Your task to perform on an android device: change the clock style Image 0: 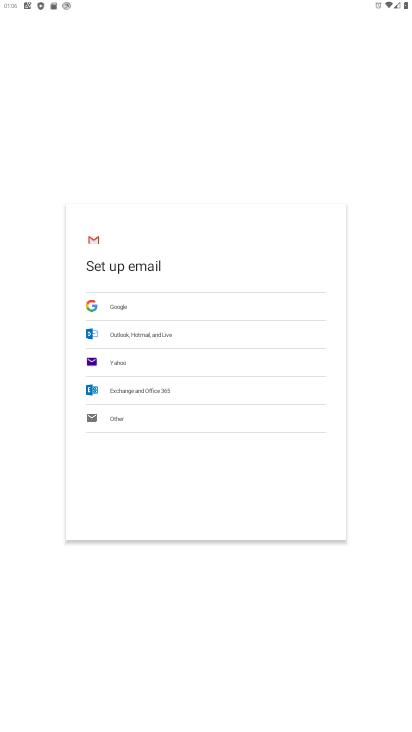
Step 0: press home button
Your task to perform on an android device: change the clock style Image 1: 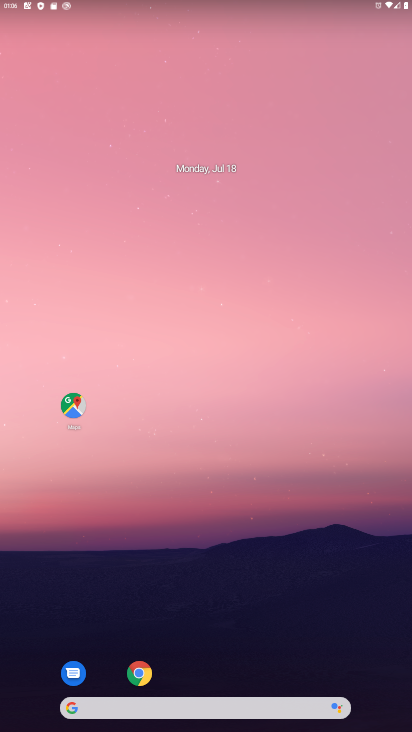
Step 1: drag from (222, 657) to (214, 35)
Your task to perform on an android device: change the clock style Image 2: 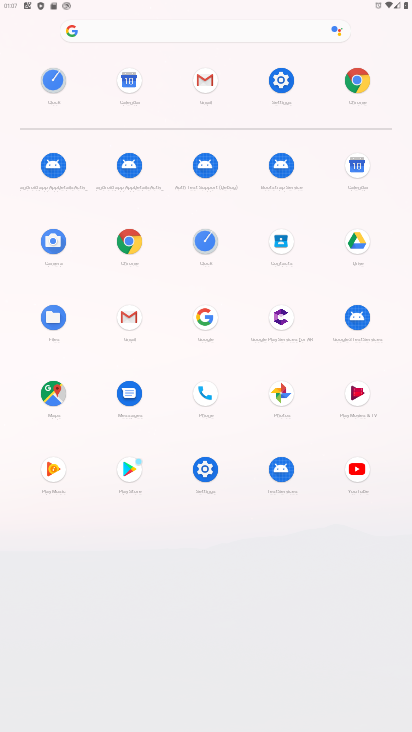
Step 2: click (48, 85)
Your task to perform on an android device: change the clock style Image 3: 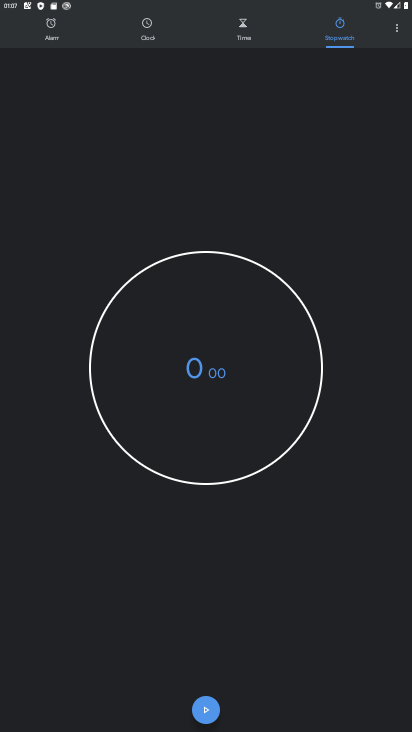
Step 3: click (388, 36)
Your task to perform on an android device: change the clock style Image 4: 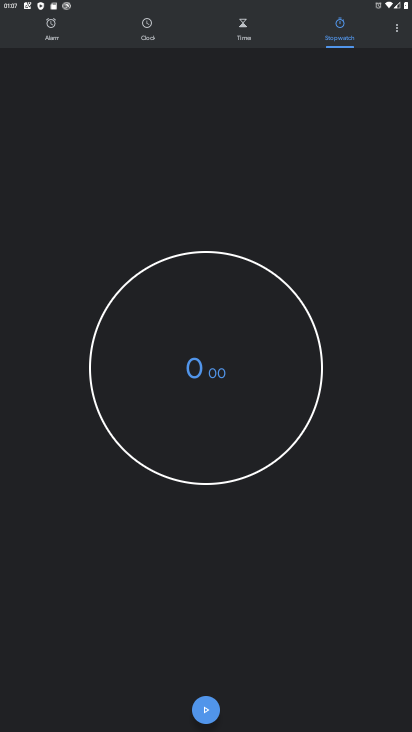
Step 4: click (402, 27)
Your task to perform on an android device: change the clock style Image 5: 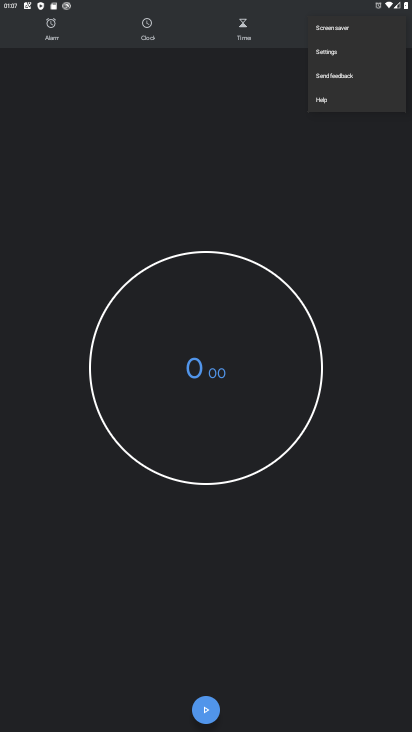
Step 5: click (358, 47)
Your task to perform on an android device: change the clock style Image 6: 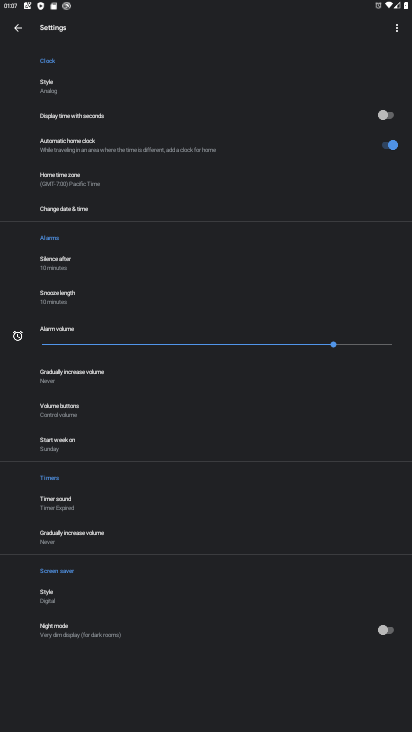
Step 6: click (73, 91)
Your task to perform on an android device: change the clock style Image 7: 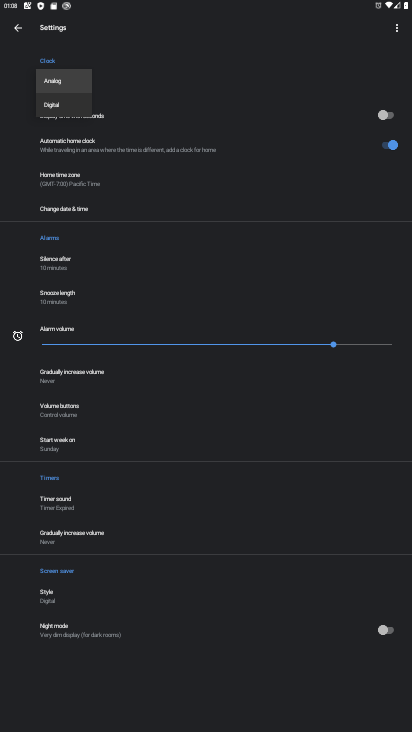
Step 7: click (56, 111)
Your task to perform on an android device: change the clock style Image 8: 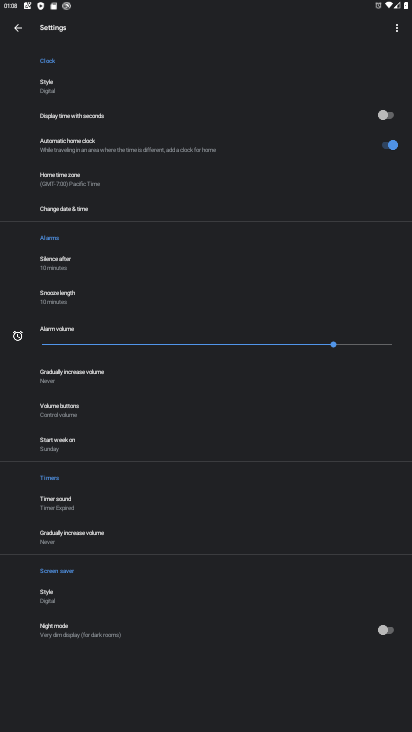
Step 8: task complete